Your task to perform on an android device: Turn off the flashlight Image 0: 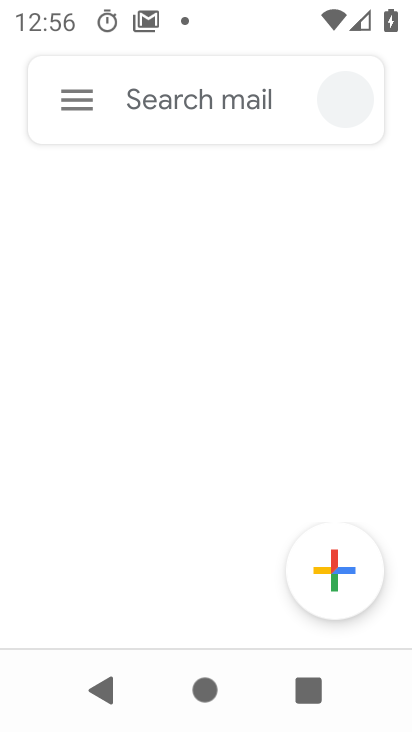
Step 0: drag from (371, 527) to (343, 88)
Your task to perform on an android device: Turn off the flashlight Image 1: 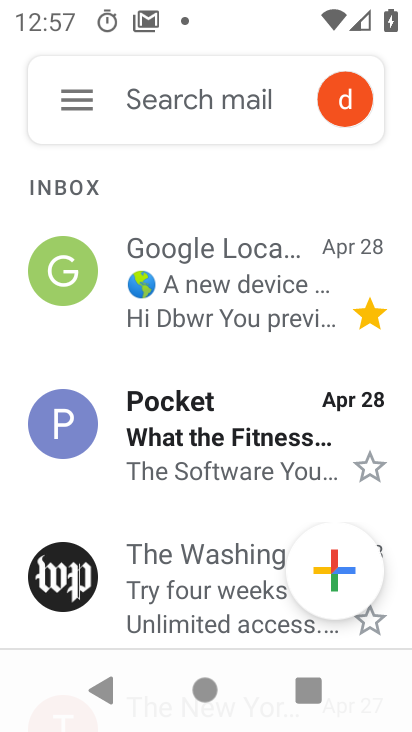
Step 1: task complete